Your task to perform on an android device: Open Reddit.com Image 0: 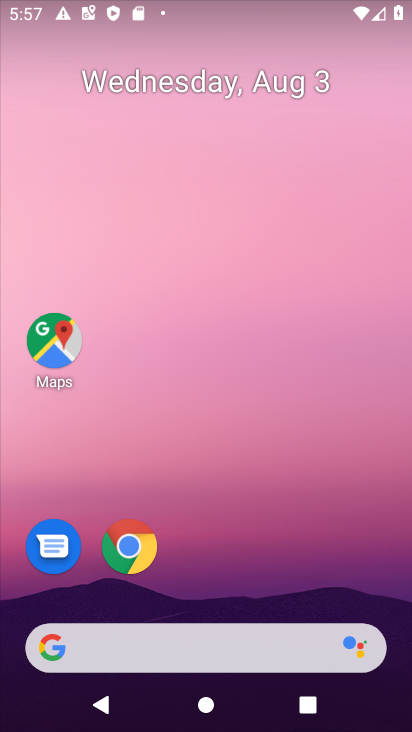
Step 0: press home button
Your task to perform on an android device: Open Reddit.com Image 1: 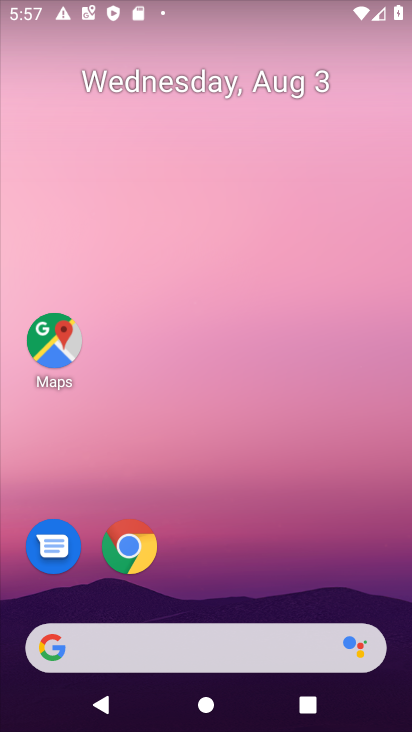
Step 1: click (49, 644)
Your task to perform on an android device: Open Reddit.com Image 2: 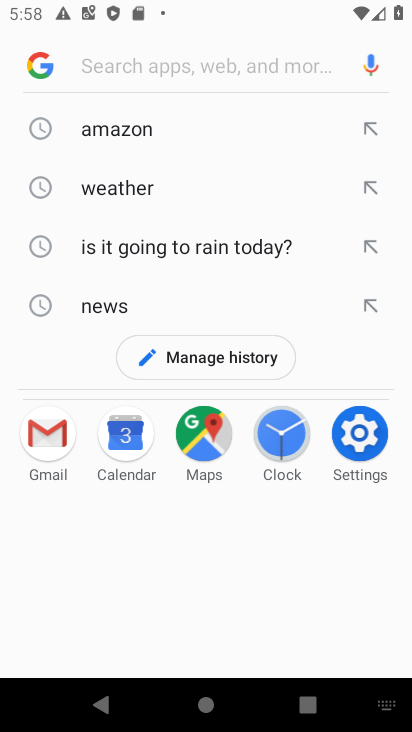
Step 2: type "Reddit.com"
Your task to perform on an android device: Open Reddit.com Image 3: 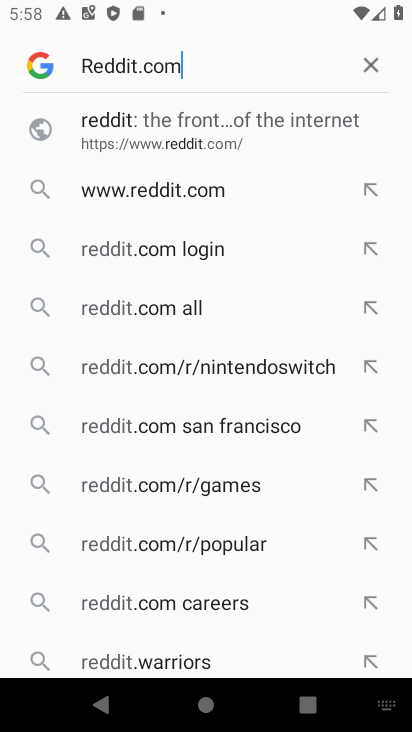
Step 3: press enter
Your task to perform on an android device: Open Reddit.com Image 4: 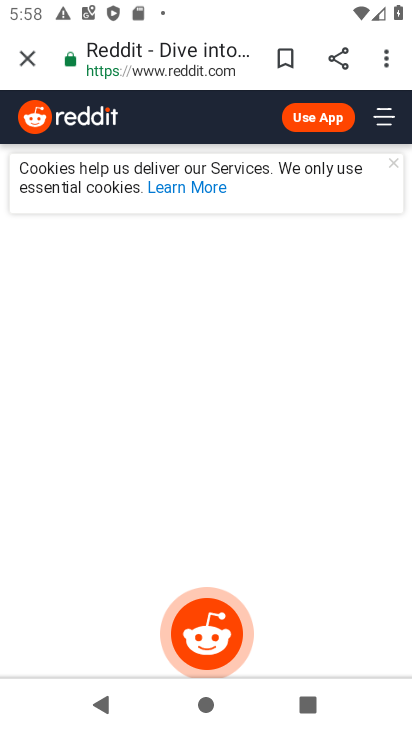
Step 4: task complete